Your task to perform on an android device: Go to Wikipedia Image 0: 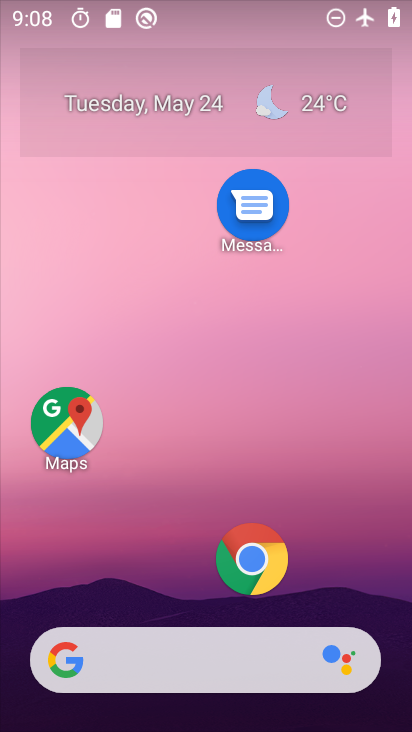
Step 0: click (257, 549)
Your task to perform on an android device: Go to Wikipedia Image 1: 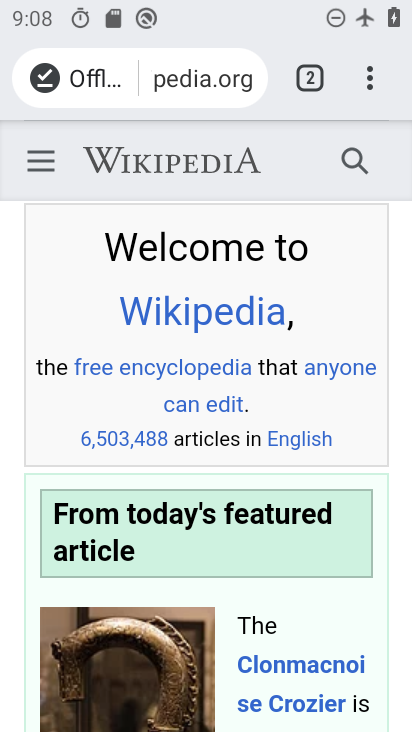
Step 1: task complete